Your task to perform on an android device: Open calendar and show me the third week of next month Image 0: 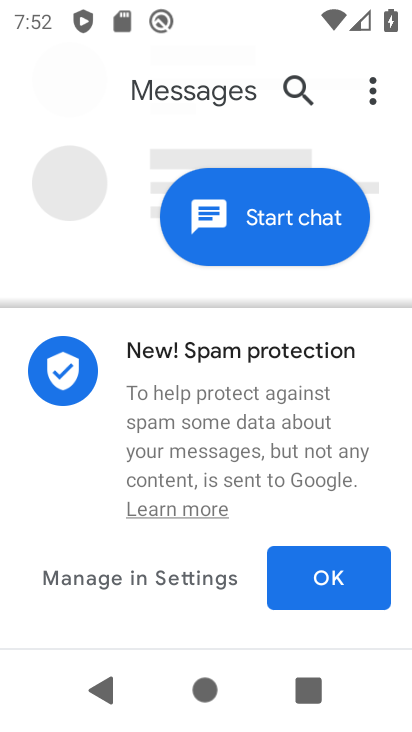
Step 0: press home button
Your task to perform on an android device: Open calendar and show me the third week of next month Image 1: 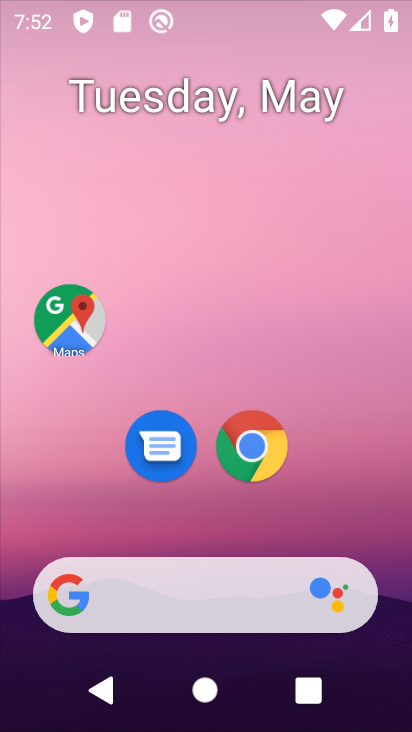
Step 1: drag from (109, 605) to (58, 0)
Your task to perform on an android device: Open calendar and show me the third week of next month Image 2: 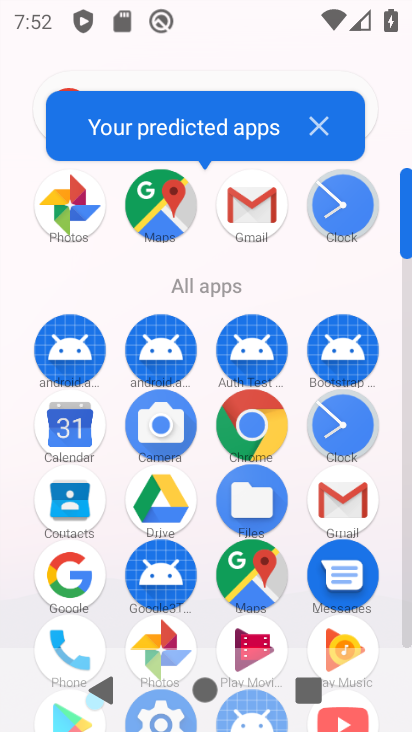
Step 2: click (75, 440)
Your task to perform on an android device: Open calendar and show me the third week of next month Image 3: 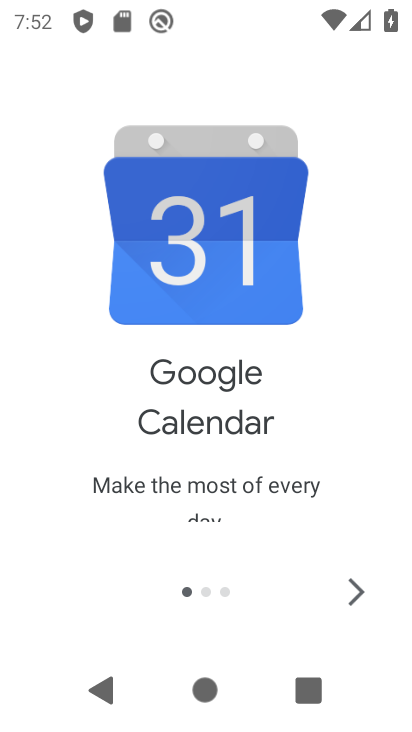
Step 3: click (355, 596)
Your task to perform on an android device: Open calendar and show me the third week of next month Image 4: 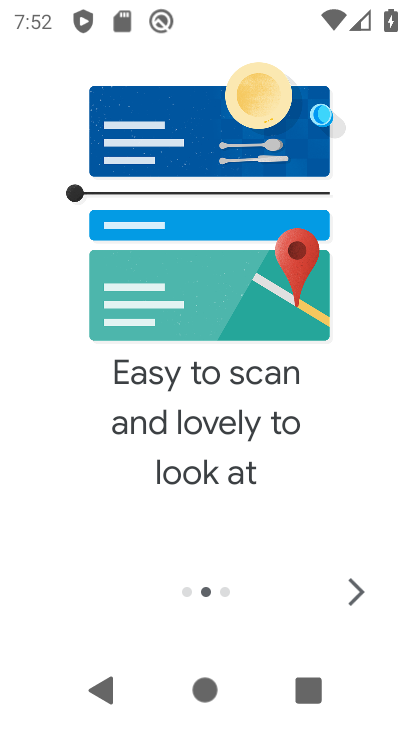
Step 4: click (355, 596)
Your task to perform on an android device: Open calendar and show me the third week of next month Image 5: 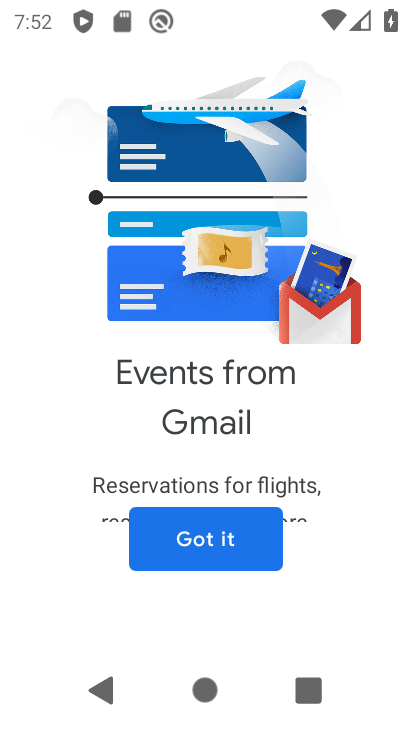
Step 5: click (159, 538)
Your task to perform on an android device: Open calendar and show me the third week of next month Image 6: 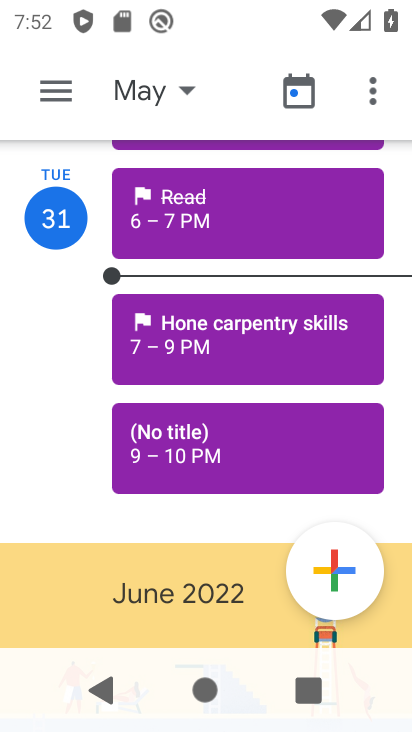
Step 6: click (162, 88)
Your task to perform on an android device: Open calendar and show me the third week of next month Image 7: 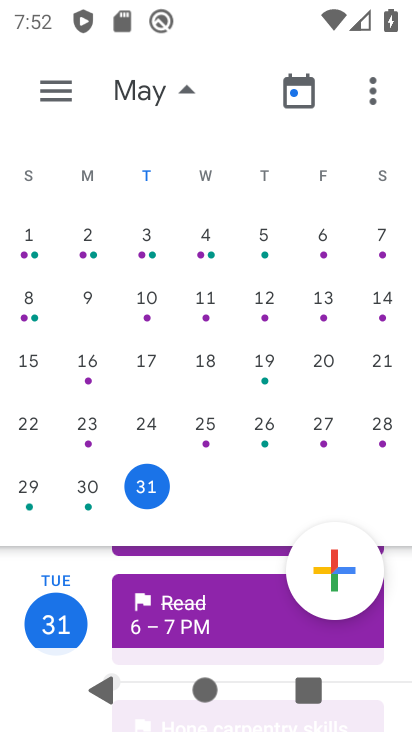
Step 7: drag from (374, 500) to (5, 466)
Your task to perform on an android device: Open calendar and show me the third week of next month Image 8: 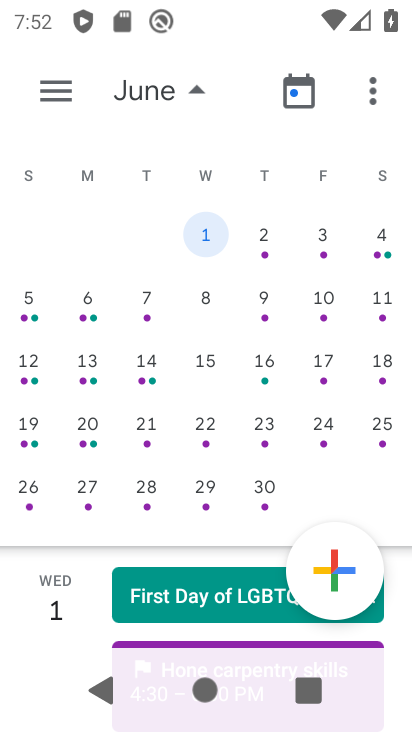
Step 8: click (177, 95)
Your task to perform on an android device: Open calendar and show me the third week of next month Image 9: 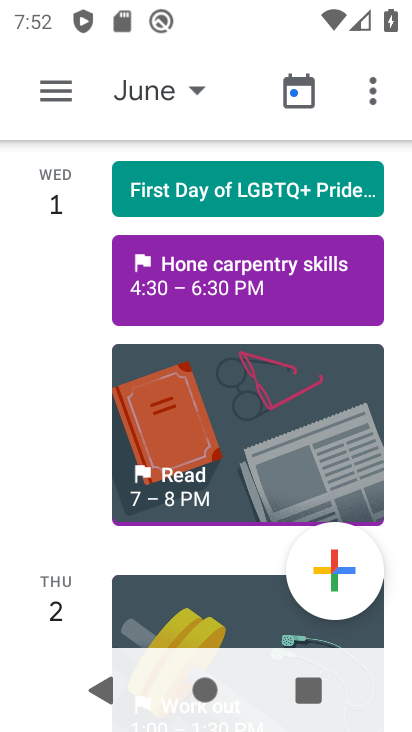
Step 9: click (34, 91)
Your task to perform on an android device: Open calendar and show me the third week of next month Image 10: 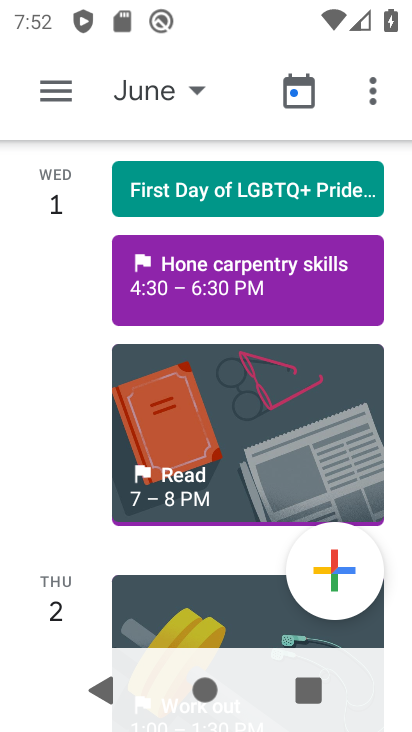
Step 10: click (43, 99)
Your task to perform on an android device: Open calendar and show me the third week of next month Image 11: 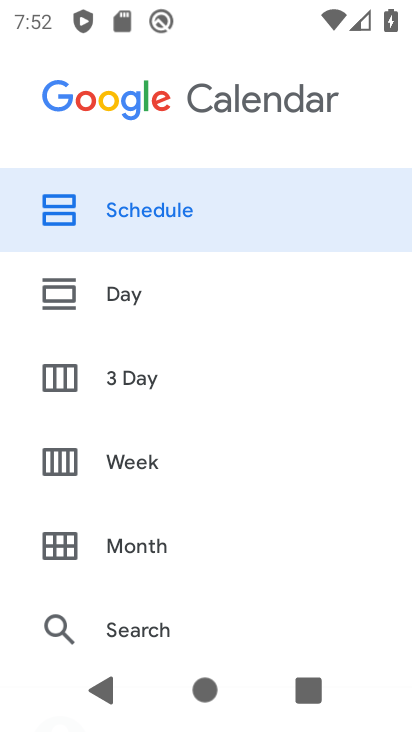
Step 11: click (64, 462)
Your task to perform on an android device: Open calendar and show me the third week of next month Image 12: 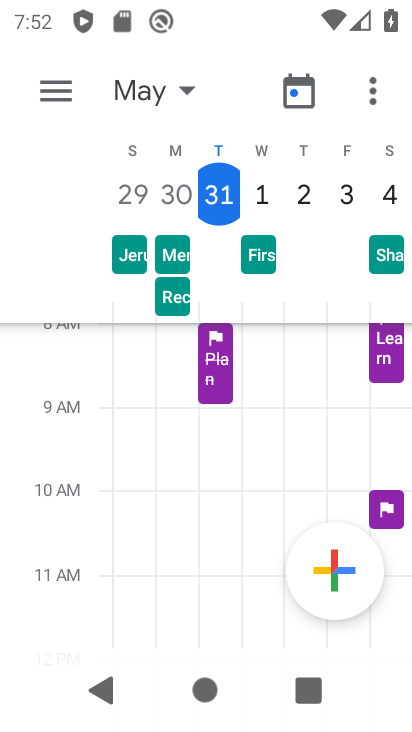
Step 12: task complete